Your task to perform on an android device: find which apps use the phone's location Image 0: 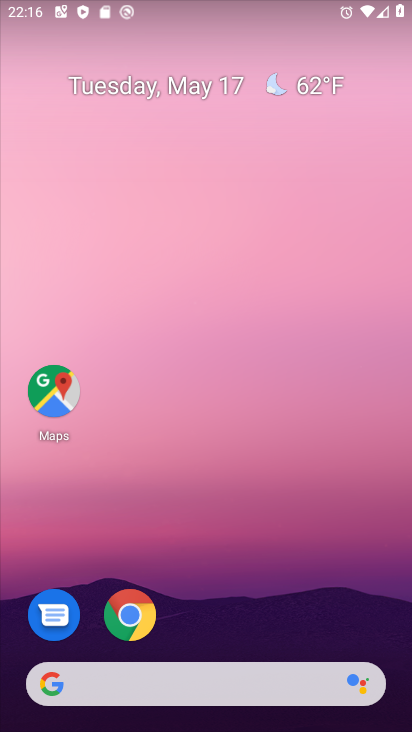
Step 0: press home button
Your task to perform on an android device: find which apps use the phone's location Image 1: 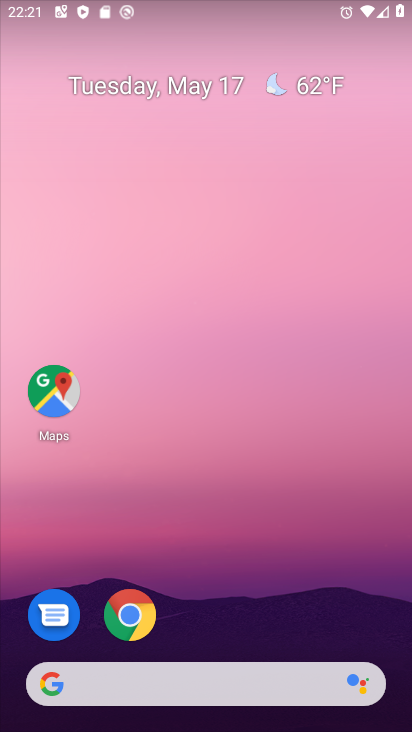
Step 1: drag from (219, 616) to (289, 30)
Your task to perform on an android device: find which apps use the phone's location Image 2: 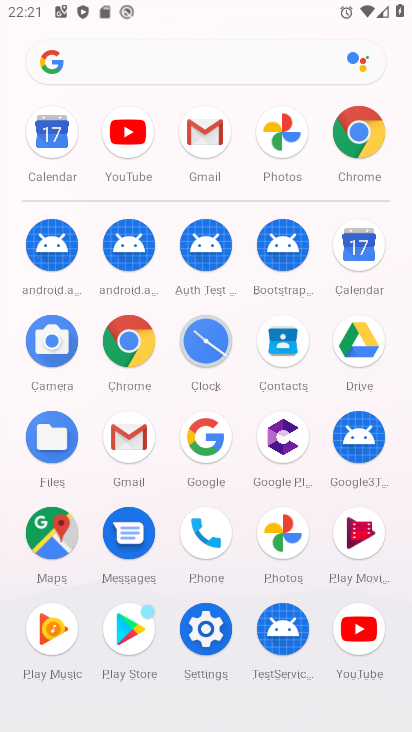
Step 2: click (217, 525)
Your task to perform on an android device: find which apps use the phone's location Image 3: 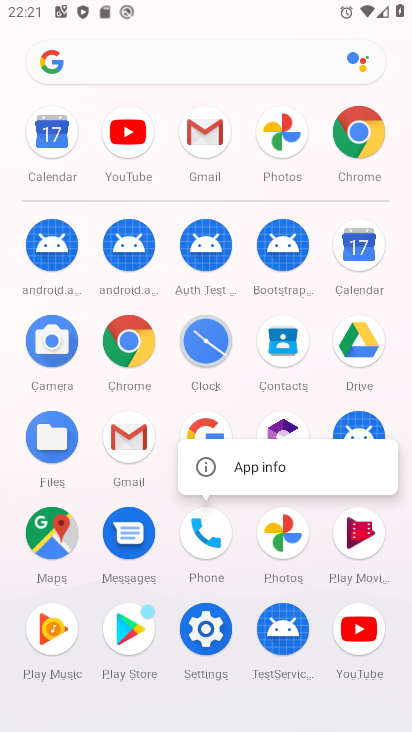
Step 3: click (228, 486)
Your task to perform on an android device: find which apps use the phone's location Image 4: 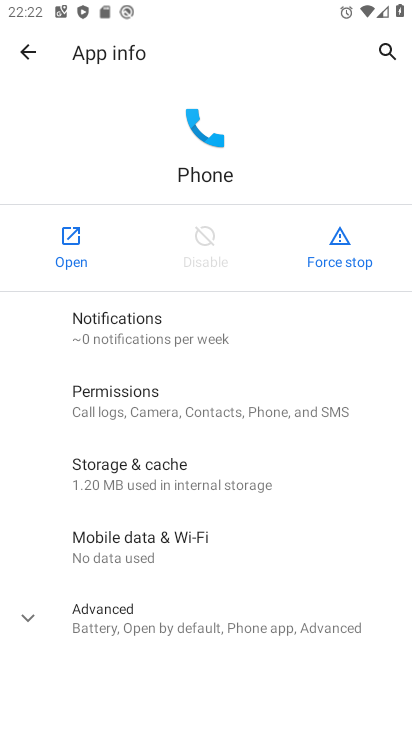
Step 4: click (233, 399)
Your task to perform on an android device: find which apps use the phone's location Image 5: 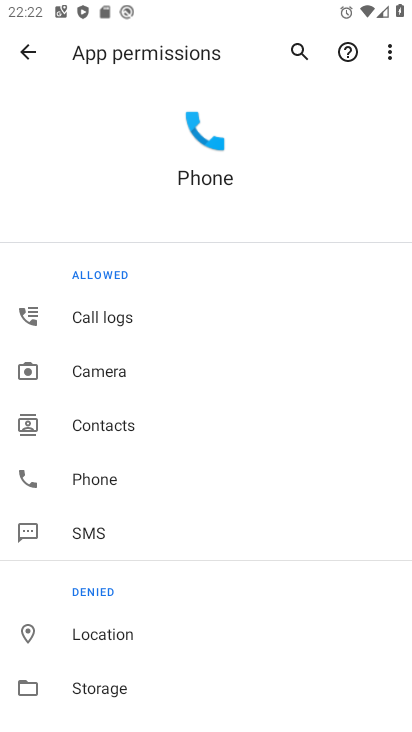
Step 5: drag from (170, 657) to (170, 601)
Your task to perform on an android device: find which apps use the phone's location Image 6: 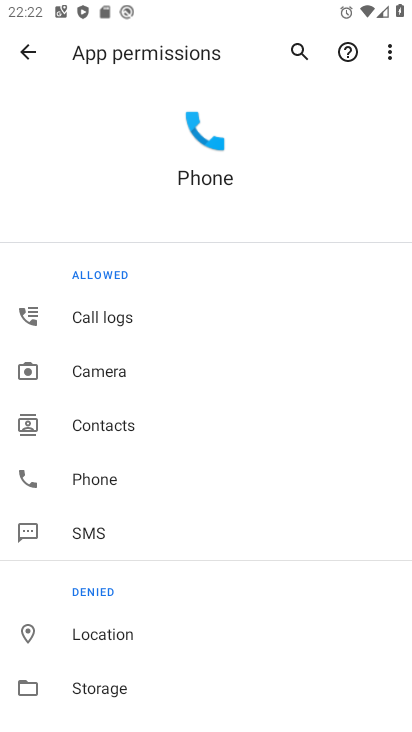
Step 6: click (156, 625)
Your task to perform on an android device: find which apps use the phone's location Image 7: 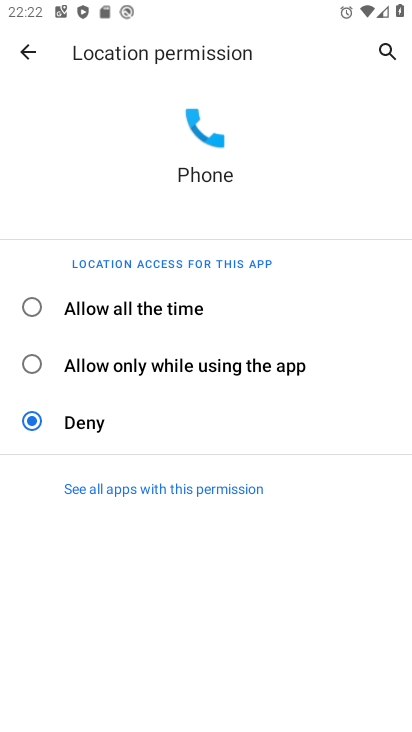
Step 7: click (198, 484)
Your task to perform on an android device: find which apps use the phone's location Image 8: 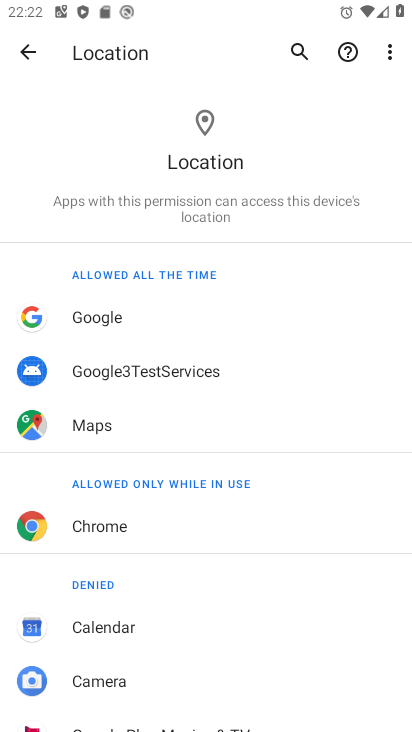
Step 8: task complete